Your task to perform on an android device: Open sound settings Image 0: 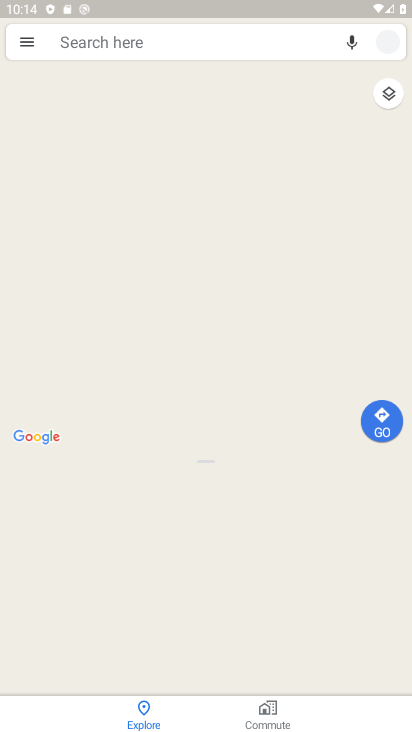
Step 0: press home button
Your task to perform on an android device: Open sound settings Image 1: 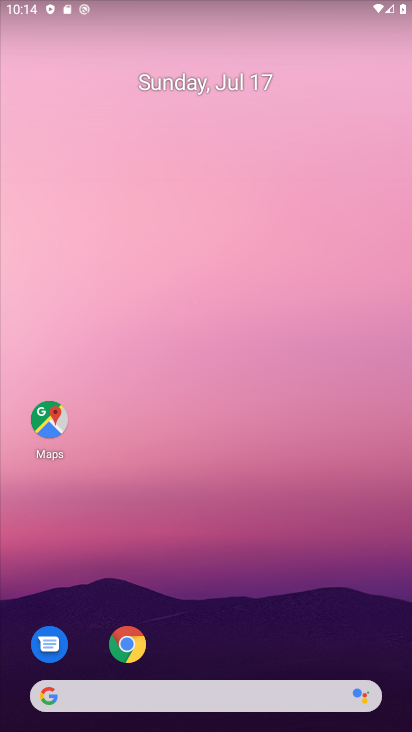
Step 1: drag from (344, 477) to (341, 99)
Your task to perform on an android device: Open sound settings Image 2: 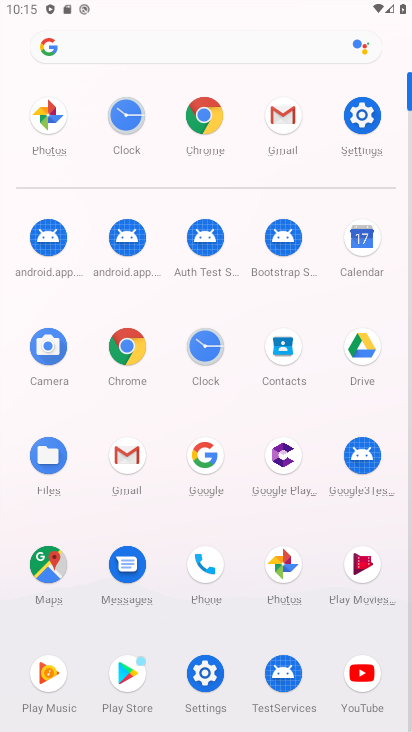
Step 2: click (361, 128)
Your task to perform on an android device: Open sound settings Image 3: 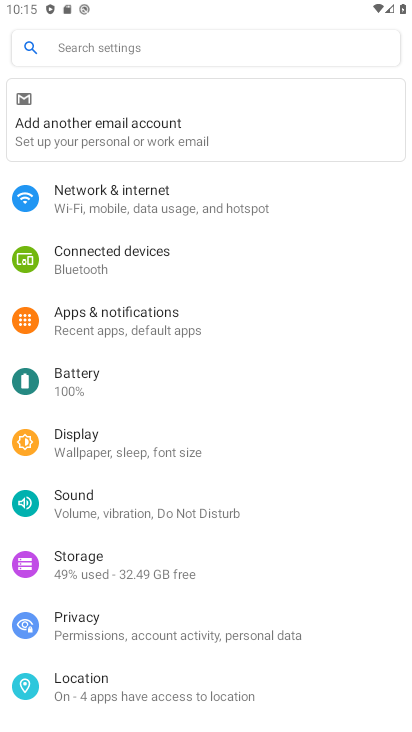
Step 3: click (115, 506)
Your task to perform on an android device: Open sound settings Image 4: 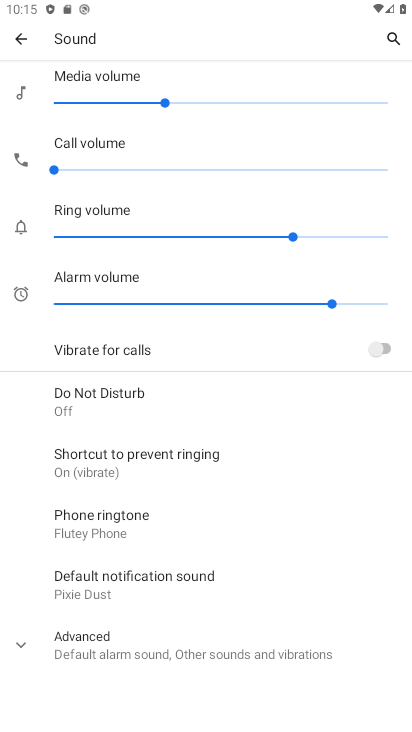
Step 4: task complete